Your task to perform on an android device: check android version Image 0: 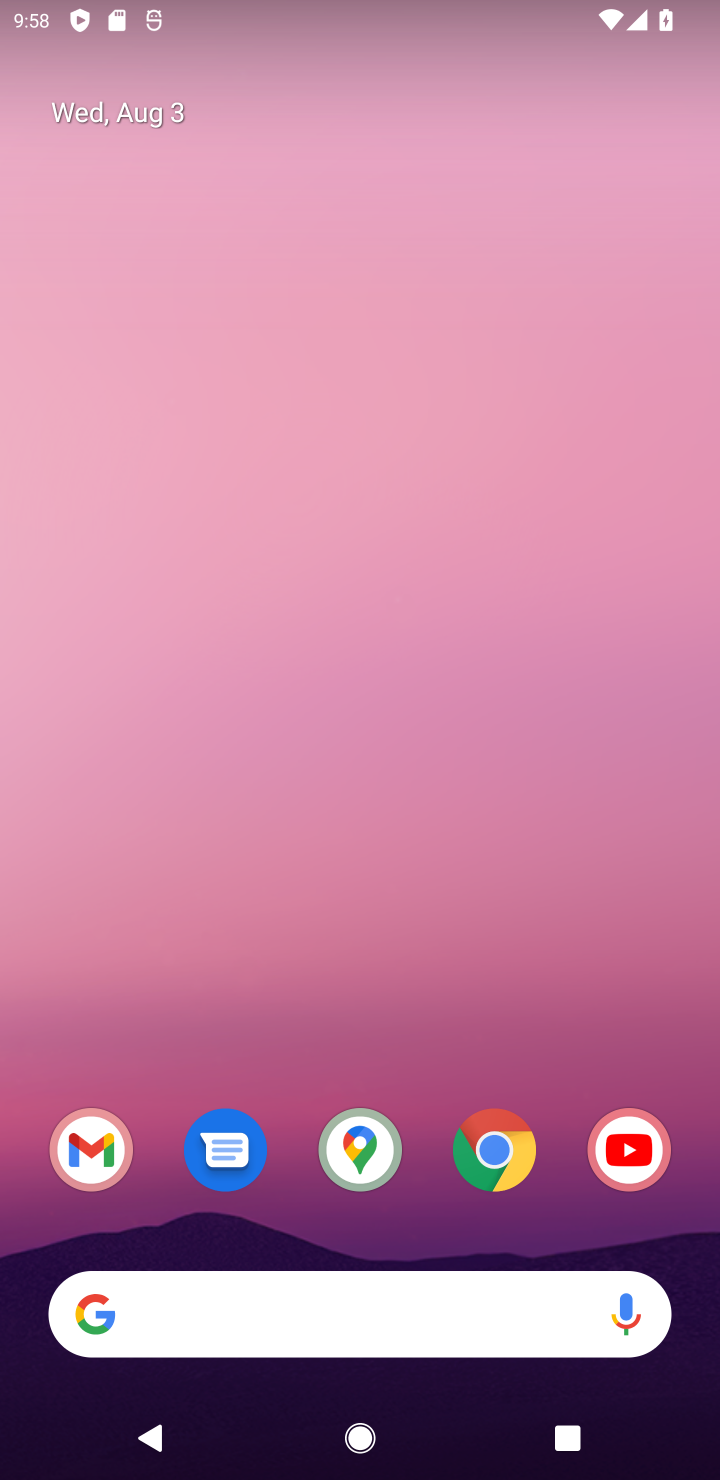
Step 0: press home button
Your task to perform on an android device: check android version Image 1: 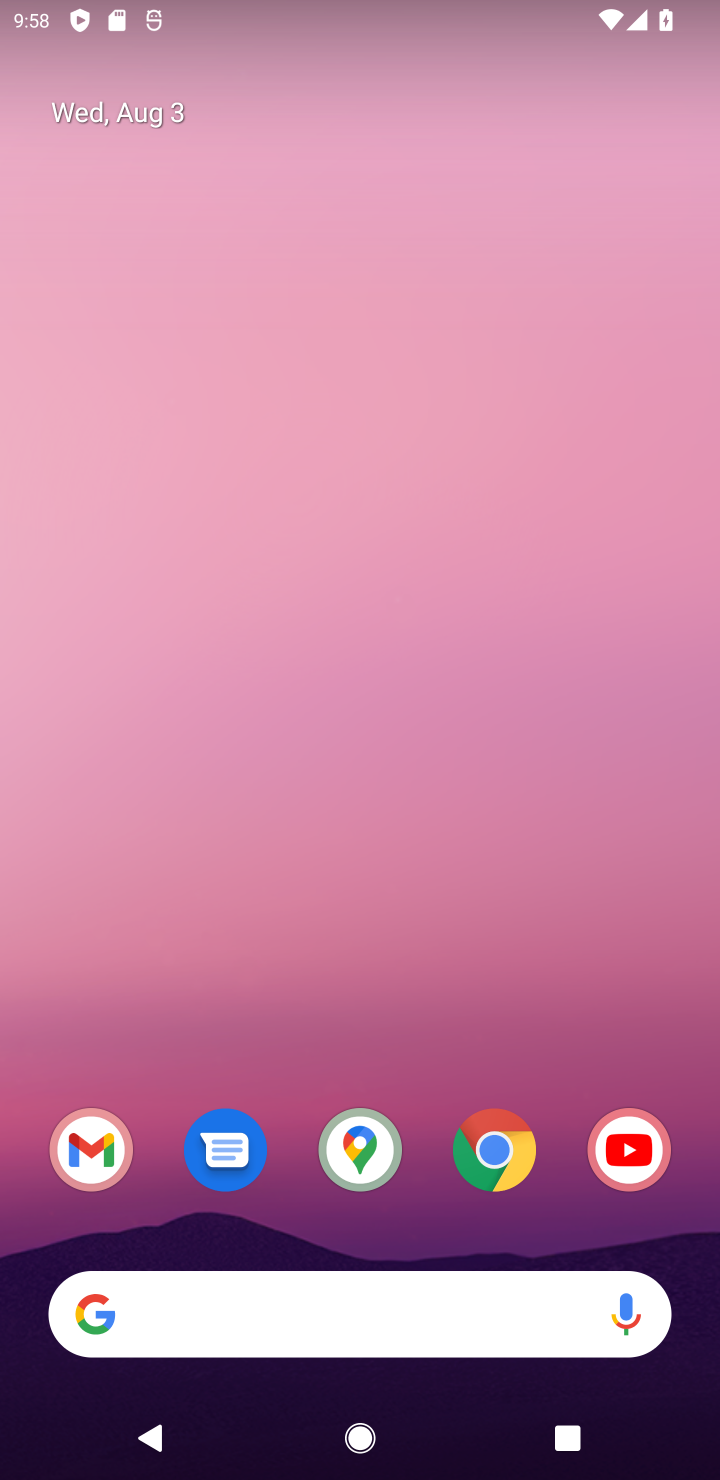
Step 1: drag from (431, 1215) to (427, 184)
Your task to perform on an android device: check android version Image 2: 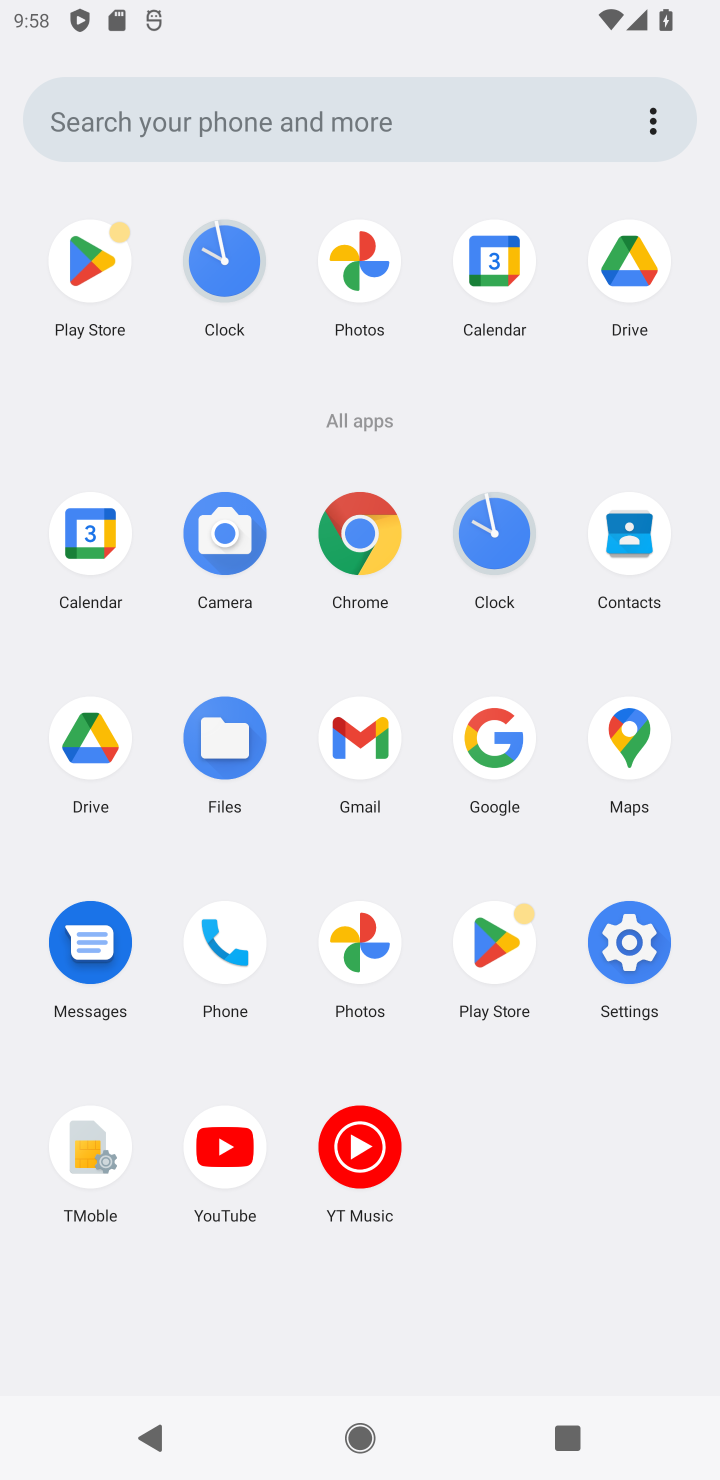
Step 2: click (634, 933)
Your task to perform on an android device: check android version Image 3: 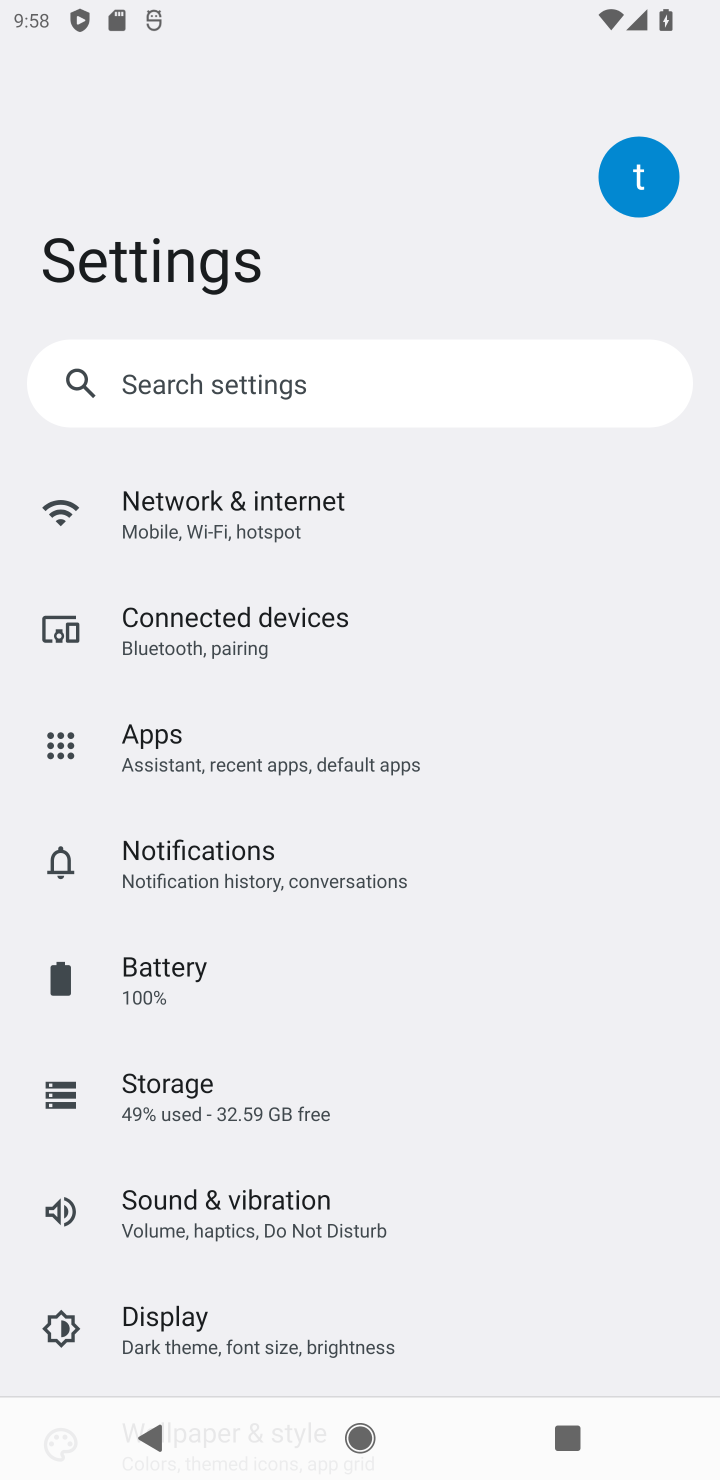
Step 3: drag from (315, 1293) to (345, 3)
Your task to perform on an android device: check android version Image 4: 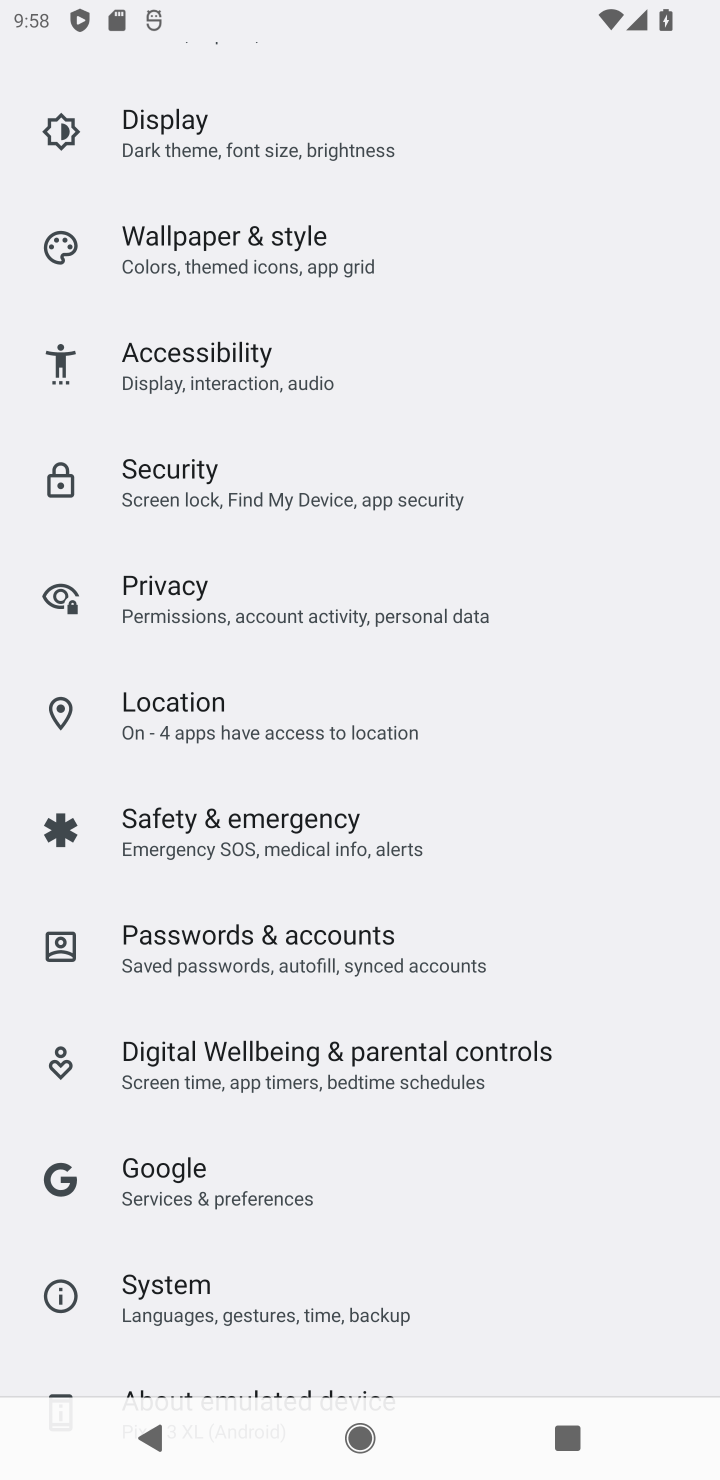
Step 4: drag from (338, 1307) to (376, 346)
Your task to perform on an android device: check android version Image 5: 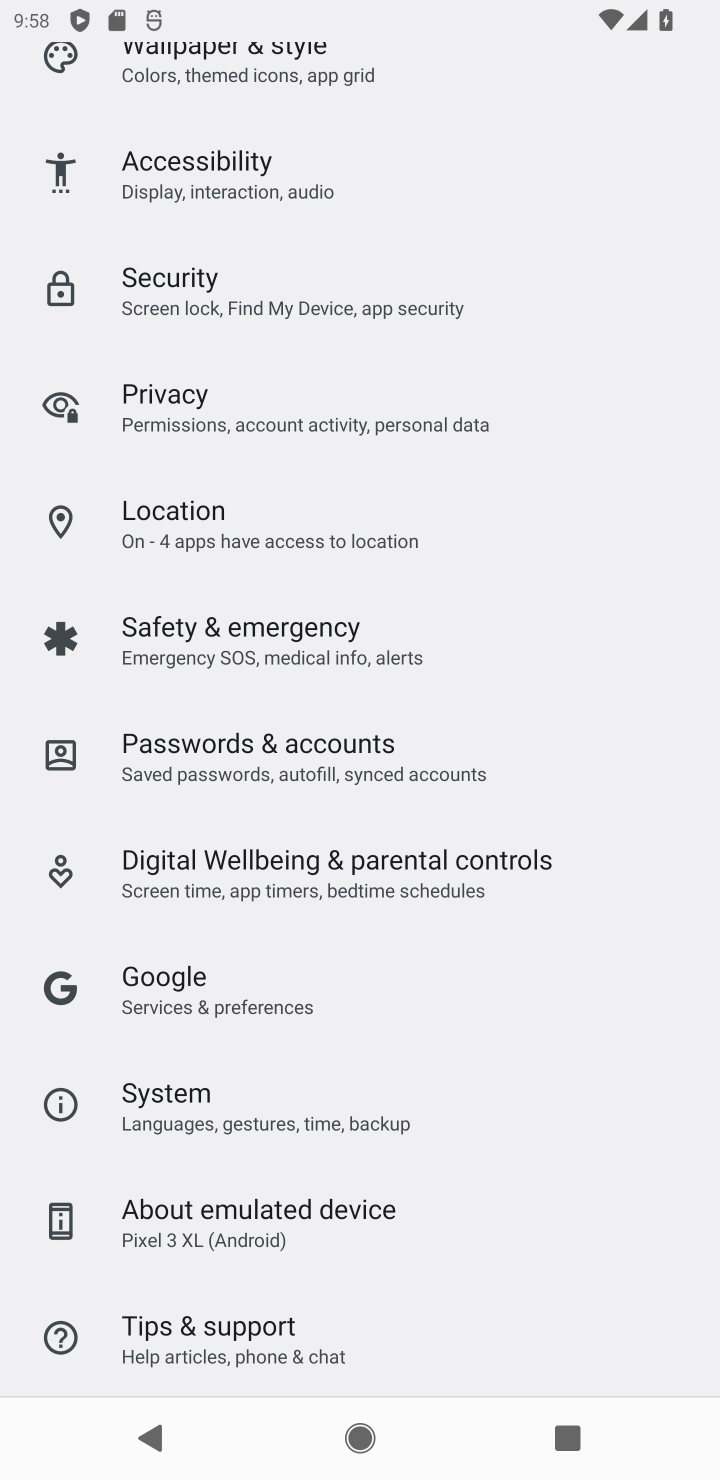
Step 5: click (321, 1215)
Your task to perform on an android device: check android version Image 6: 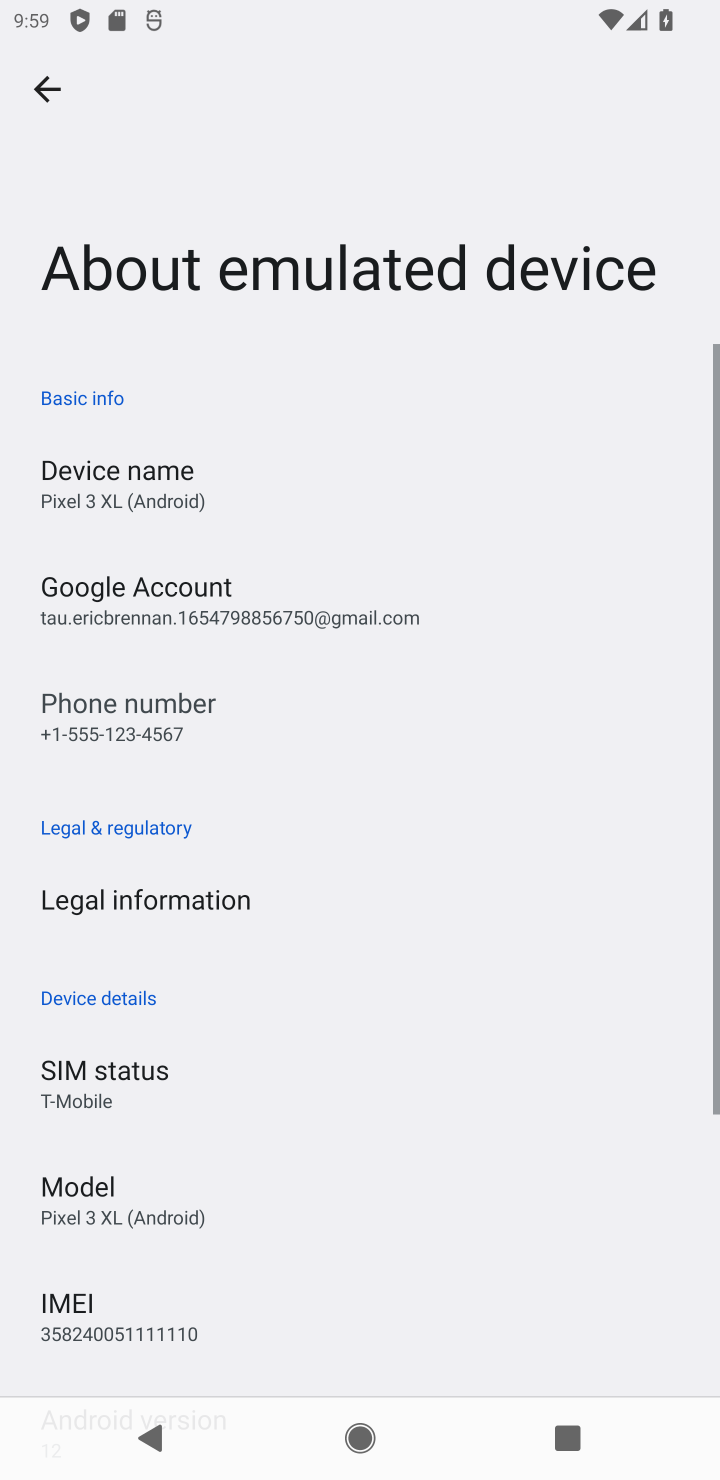
Step 6: drag from (244, 1243) to (294, 188)
Your task to perform on an android device: check android version Image 7: 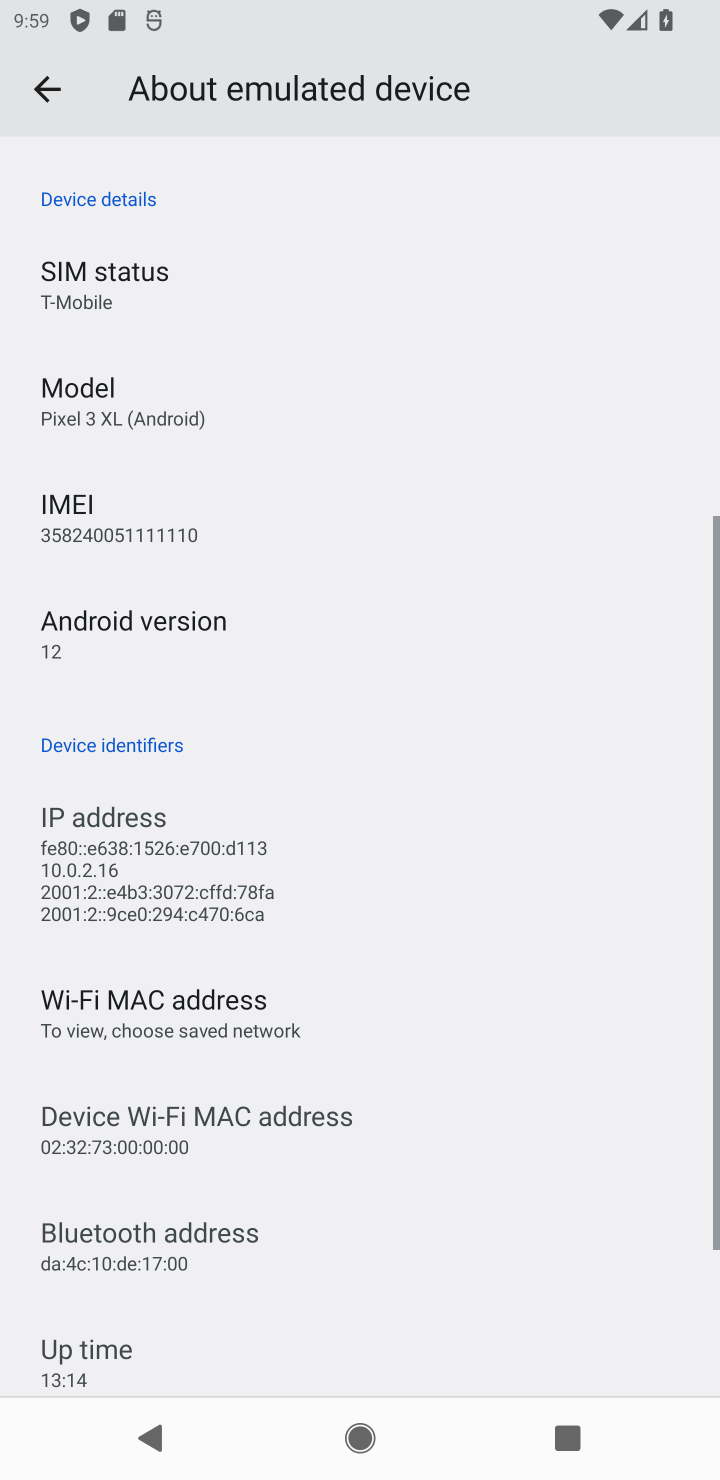
Step 7: click (181, 793)
Your task to perform on an android device: check android version Image 8: 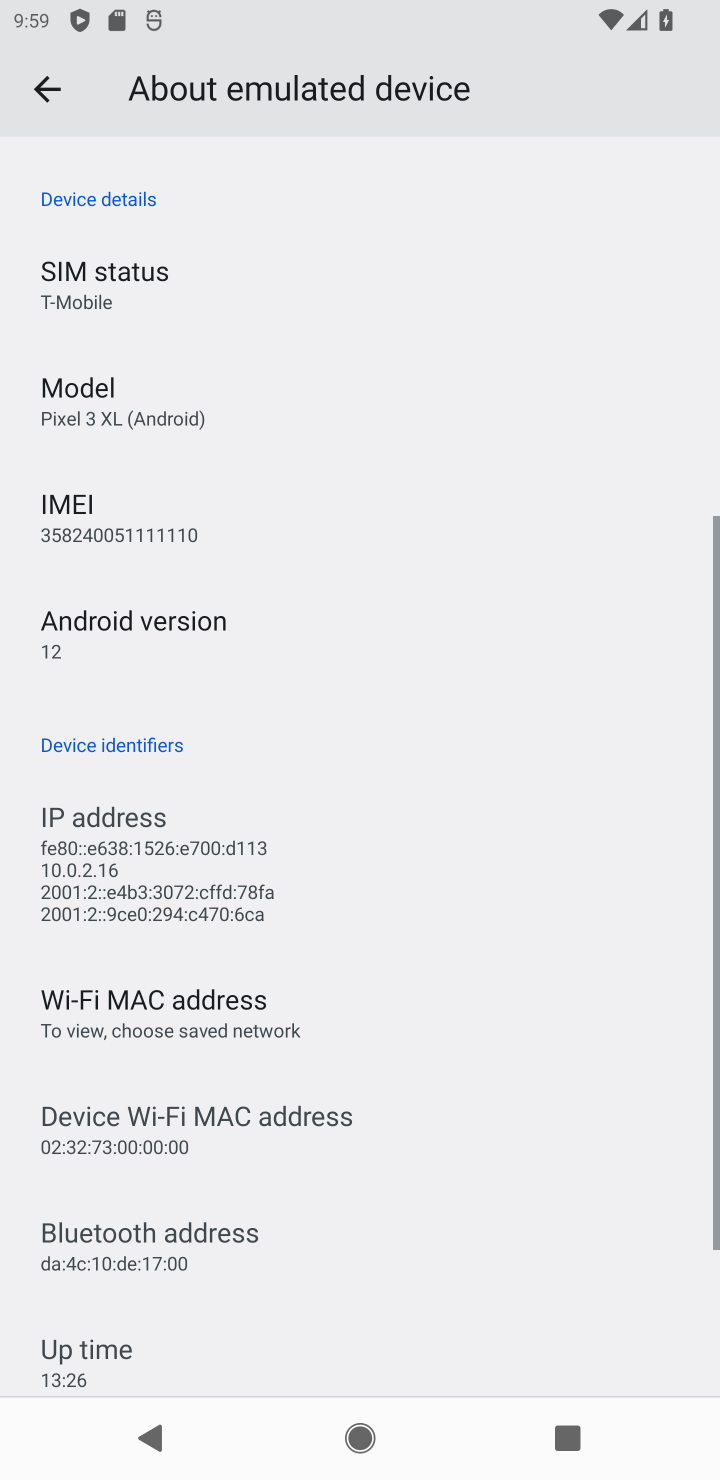
Step 8: task complete